Your task to perform on an android device: Show me popular videos on Youtube Image 0: 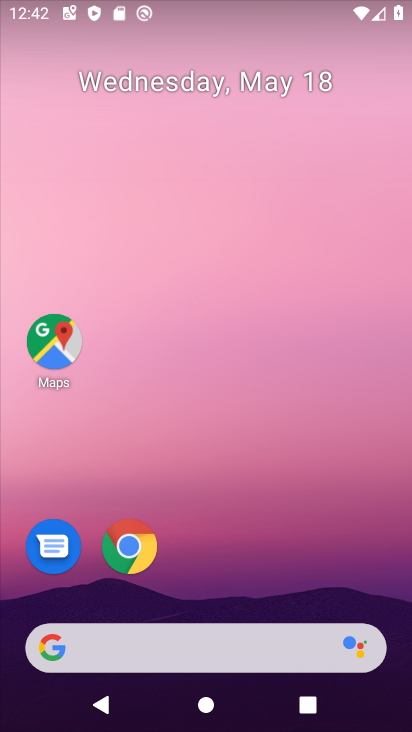
Step 0: drag from (231, 589) to (243, 76)
Your task to perform on an android device: Show me popular videos on Youtube Image 1: 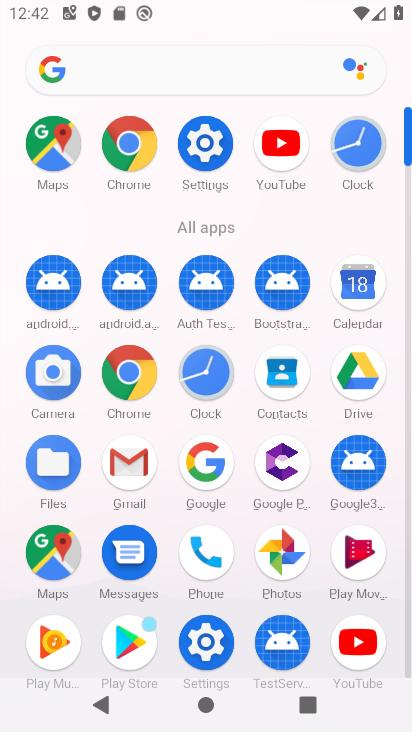
Step 1: click (294, 153)
Your task to perform on an android device: Show me popular videos on Youtube Image 2: 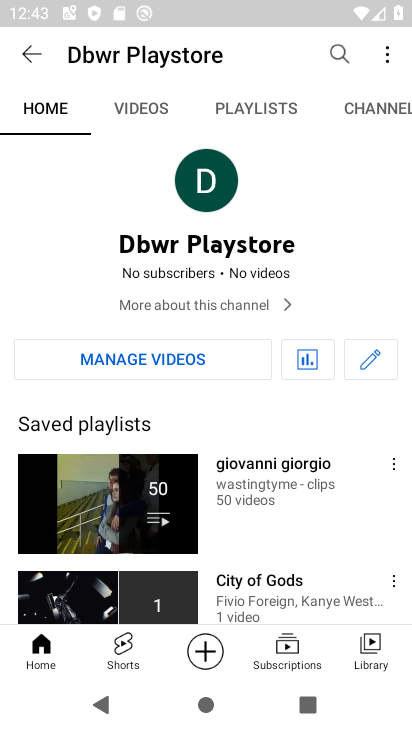
Step 2: click (38, 63)
Your task to perform on an android device: Show me popular videos on Youtube Image 3: 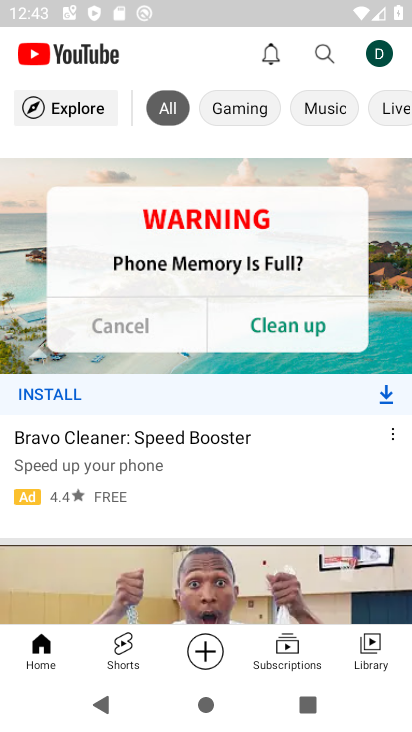
Step 3: click (321, 62)
Your task to perform on an android device: Show me popular videos on Youtube Image 4: 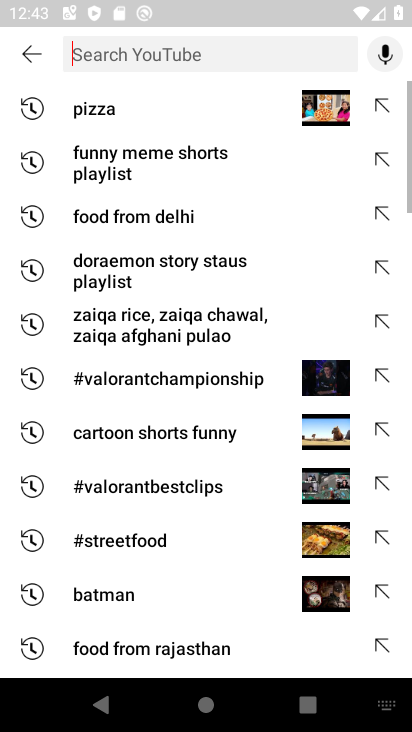
Step 4: click (302, 56)
Your task to perform on an android device: Show me popular videos on Youtube Image 5: 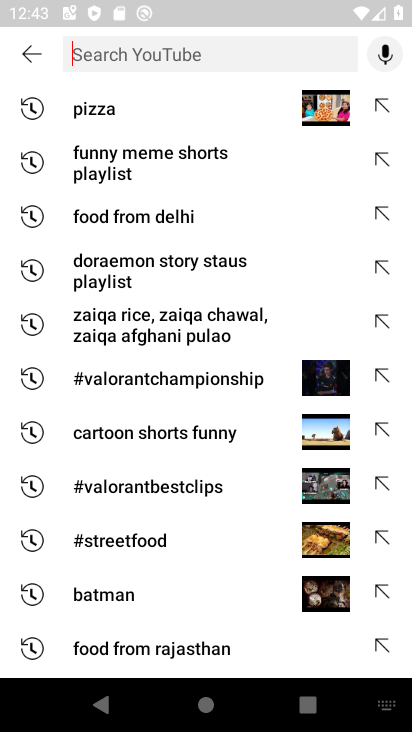
Step 5: type "popular videos "
Your task to perform on an android device: Show me popular videos on Youtube Image 6: 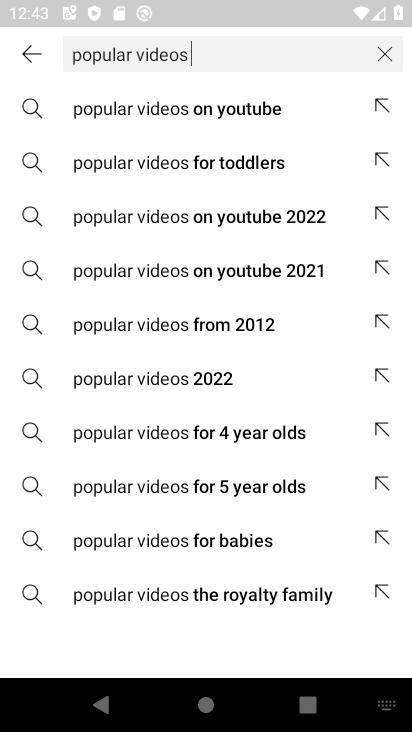
Step 6: click (141, 102)
Your task to perform on an android device: Show me popular videos on Youtube Image 7: 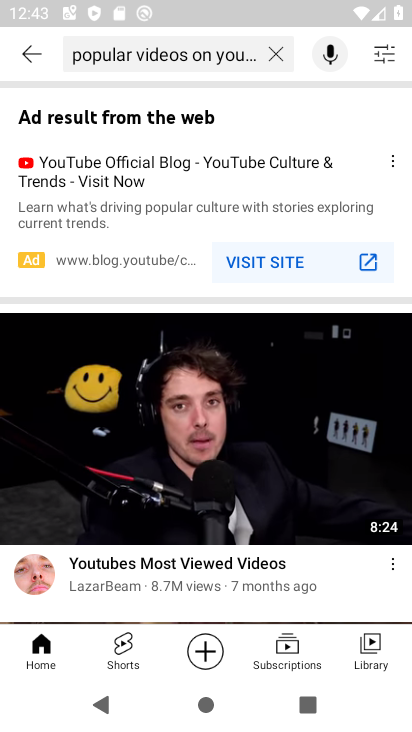
Step 7: task complete